Your task to perform on an android device: change the upload size in google photos Image 0: 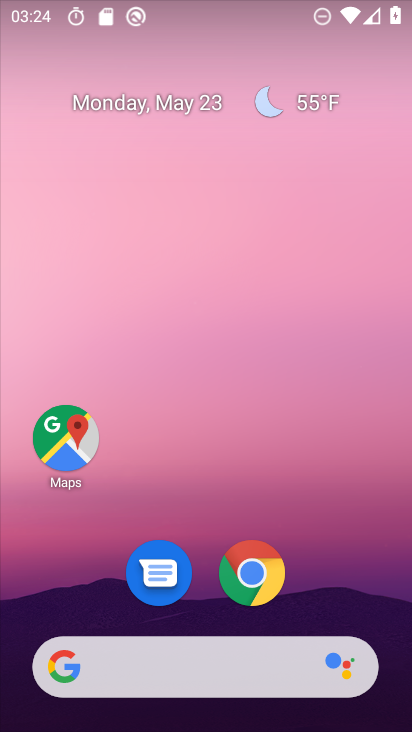
Step 0: drag from (339, 602) to (261, 44)
Your task to perform on an android device: change the upload size in google photos Image 1: 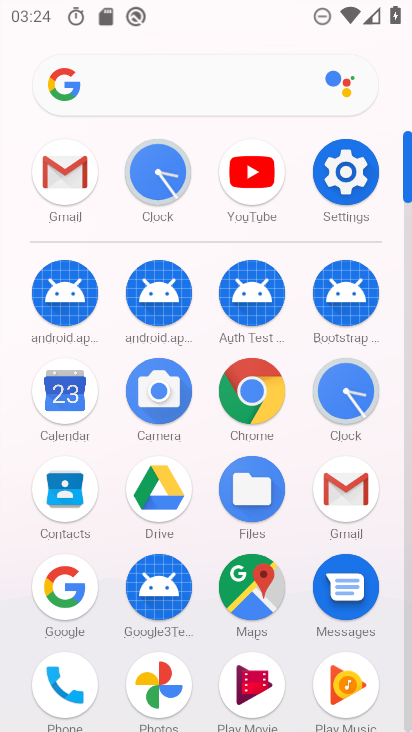
Step 1: click (151, 686)
Your task to perform on an android device: change the upload size in google photos Image 2: 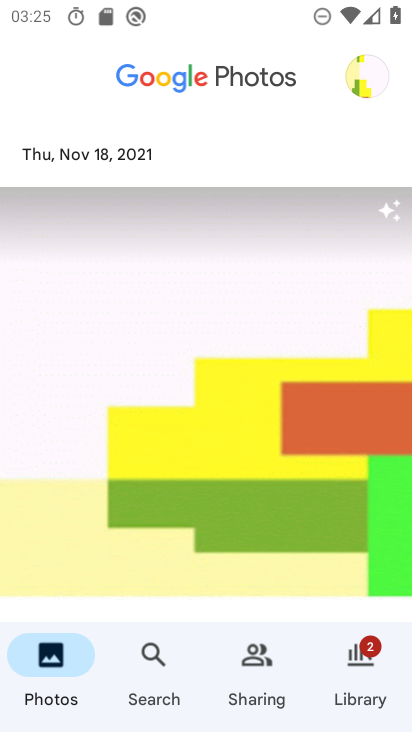
Step 2: click (364, 76)
Your task to perform on an android device: change the upload size in google photos Image 3: 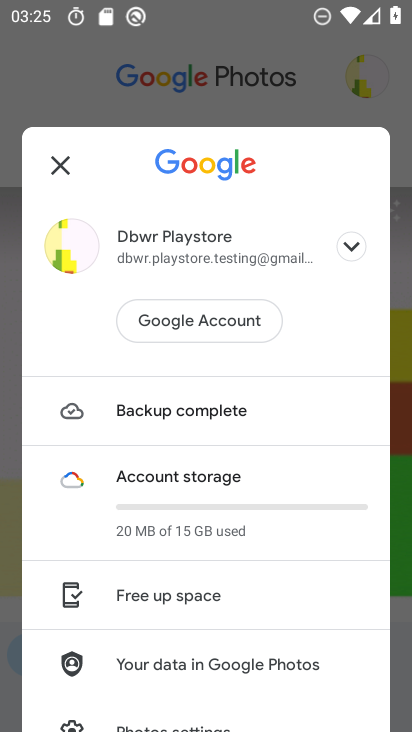
Step 3: drag from (235, 692) to (232, 339)
Your task to perform on an android device: change the upload size in google photos Image 4: 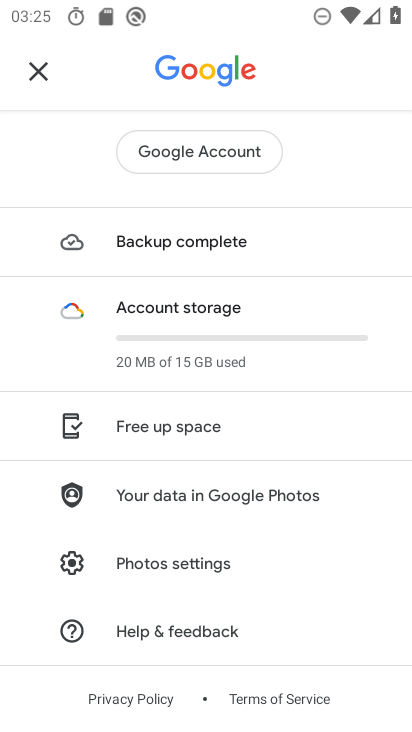
Step 4: click (211, 563)
Your task to perform on an android device: change the upload size in google photos Image 5: 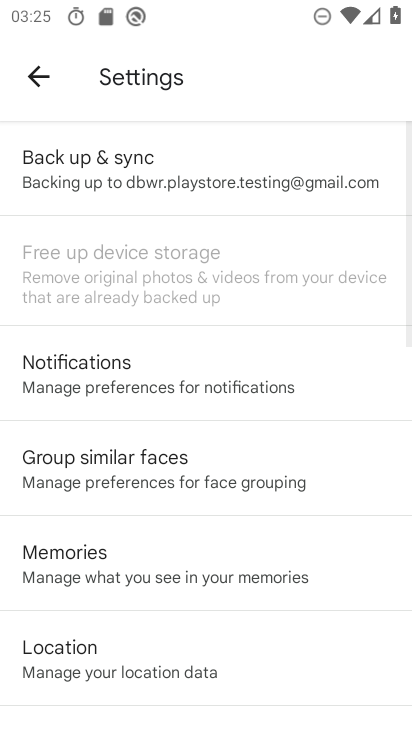
Step 5: click (243, 176)
Your task to perform on an android device: change the upload size in google photos Image 6: 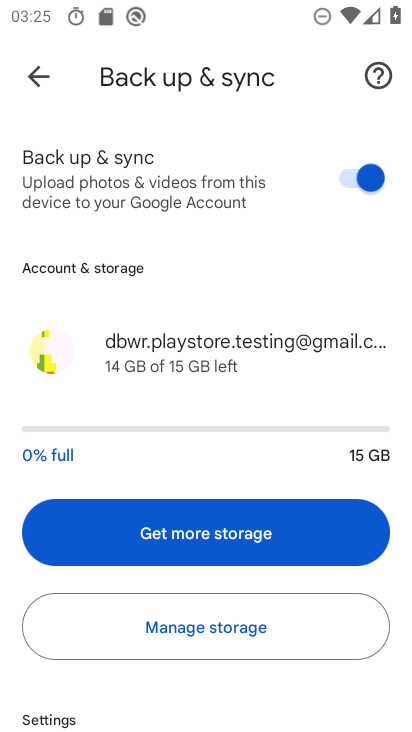
Step 6: drag from (297, 683) to (229, 319)
Your task to perform on an android device: change the upload size in google photos Image 7: 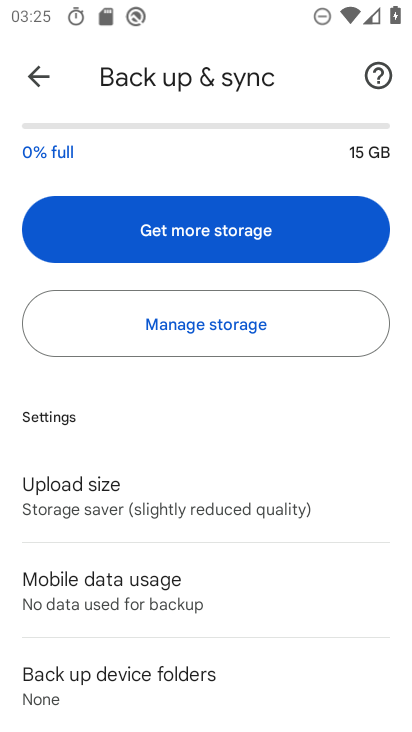
Step 7: click (204, 507)
Your task to perform on an android device: change the upload size in google photos Image 8: 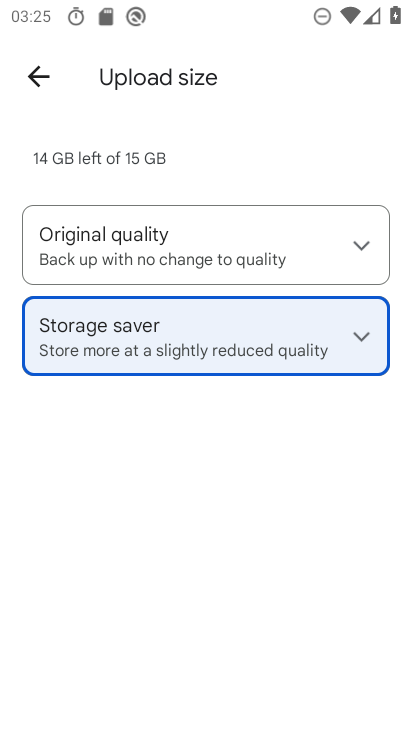
Step 8: click (182, 264)
Your task to perform on an android device: change the upload size in google photos Image 9: 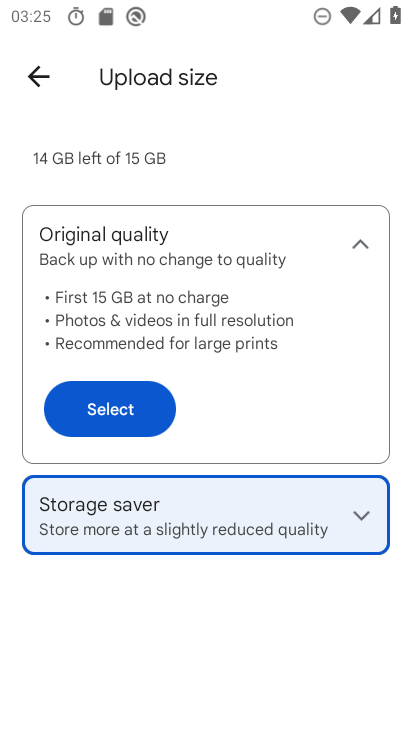
Step 9: click (117, 412)
Your task to perform on an android device: change the upload size in google photos Image 10: 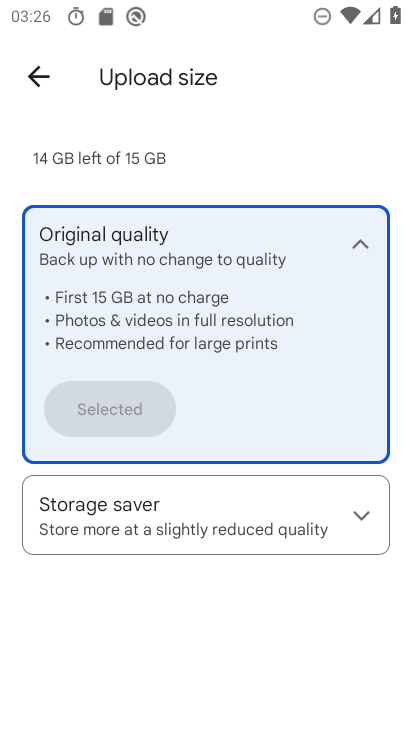
Step 10: task complete